Your task to perform on an android device: turn notification dots on Image 0: 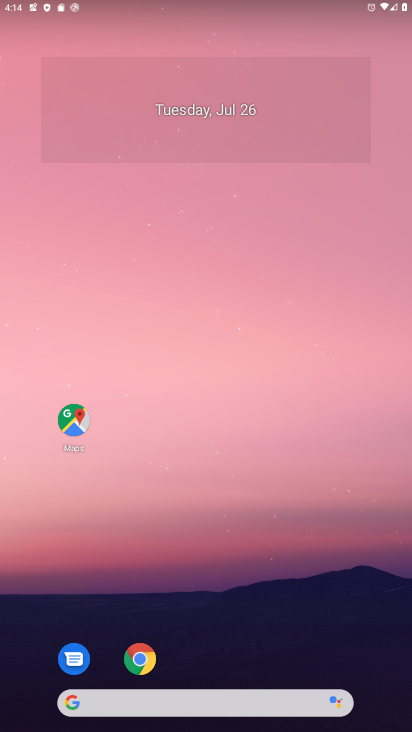
Step 0: press home button
Your task to perform on an android device: turn notification dots on Image 1: 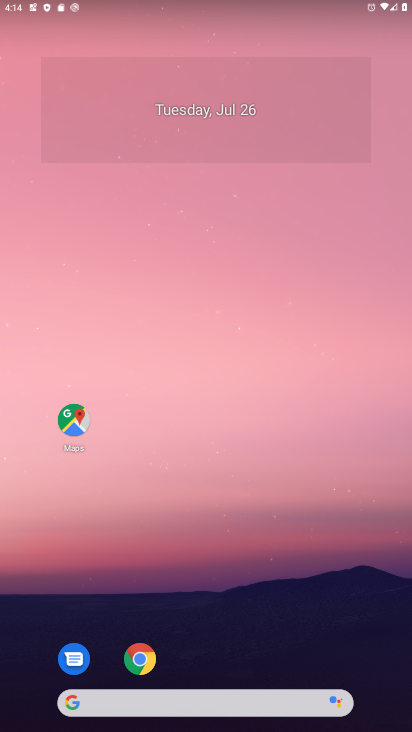
Step 1: drag from (275, 657) to (338, 70)
Your task to perform on an android device: turn notification dots on Image 2: 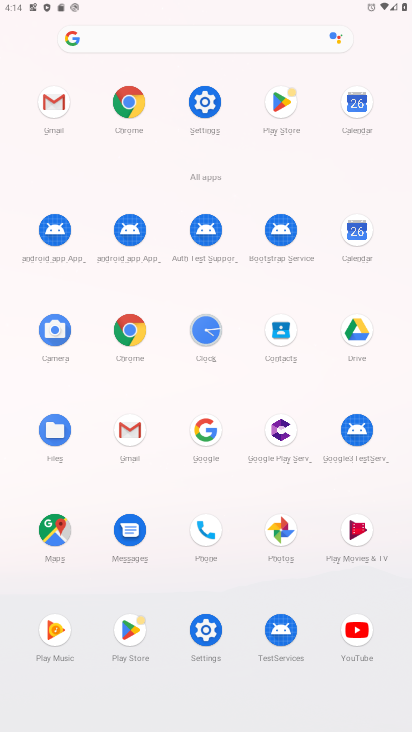
Step 2: click (203, 99)
Your task to perform on an android device: turn notification dots on Image 3: 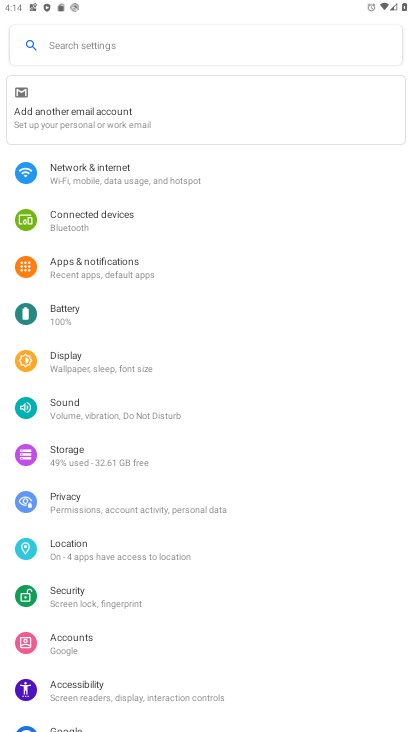
Step 3: click (83, 277)
Your task to perform on an android device: turn notification dots on Image 4: 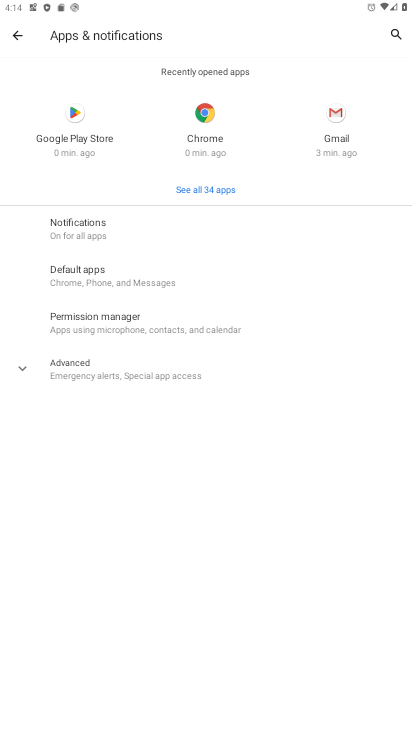
Step 4: click (89, 221)
Your task to perform on an android device: turn notification dots on Image 5: 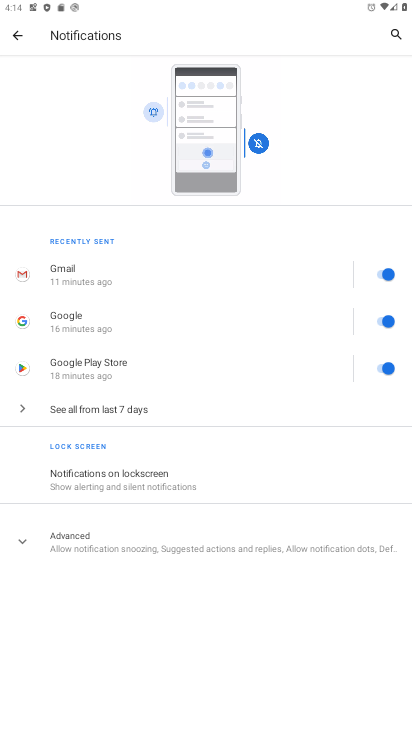
Step 5: click (100, 543)
Your task to perform on an android device: turn notification dots on Image 6: 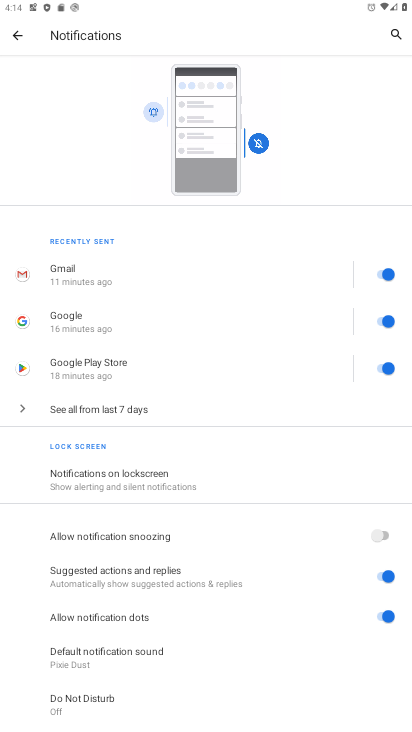
Step 6: task complete